Your task to perform on an android device: Open accessibility settings Image 0: 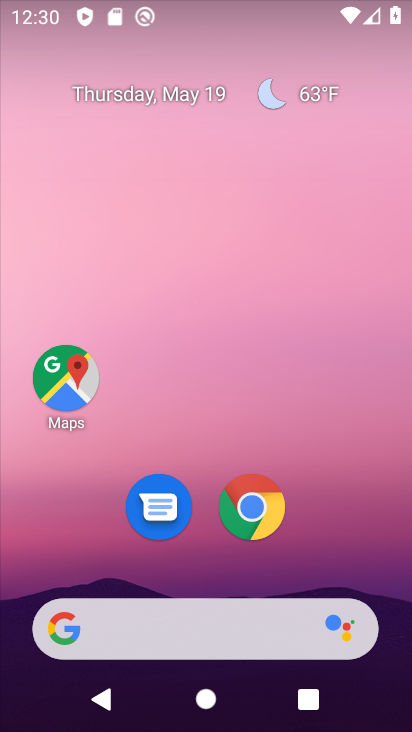
Step 0: drag from (193, 596) to (220, 273)
Your task to perform on an android device: Open accessibility settings Image 1: 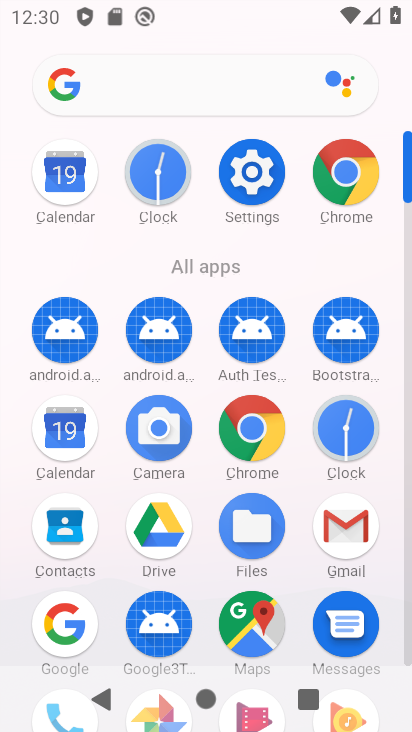
Step 1: click (251, 162)
Your task to perform on an android device: Open accessibility settings Image 2: 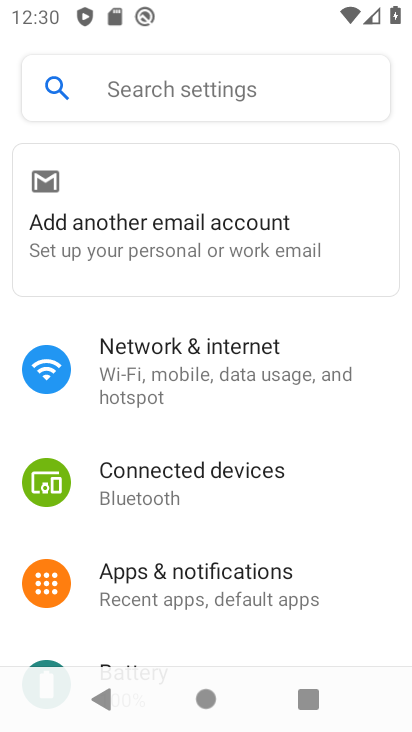
Step 2: drag from (213, 634) to (270, 238)
Your task to perform on an android device: Open accessibility settings Image 3: 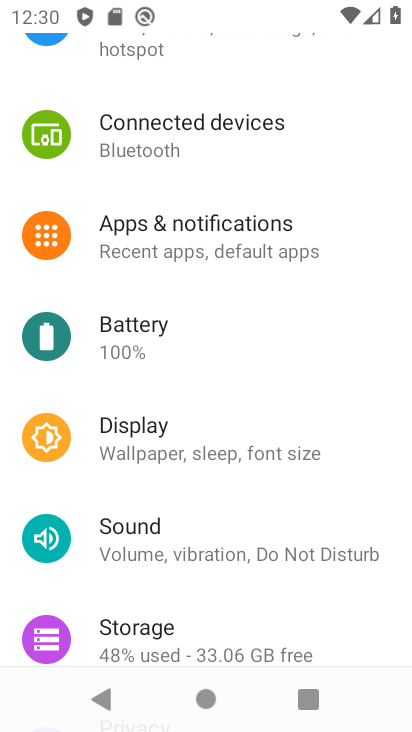
Step 3: drag from (174, 644) to (223, 45)
Your task to perform on an android device: Open accessibility settings Image 4: 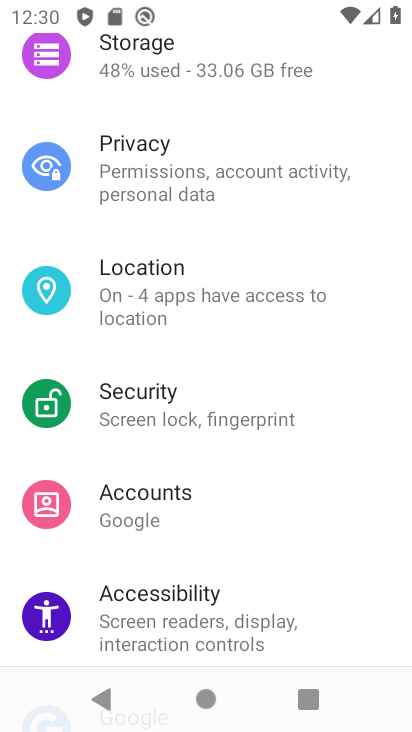
Step 4: click (167, 598)
Your task to perform on an android device: Open accessibility settings Image 5: 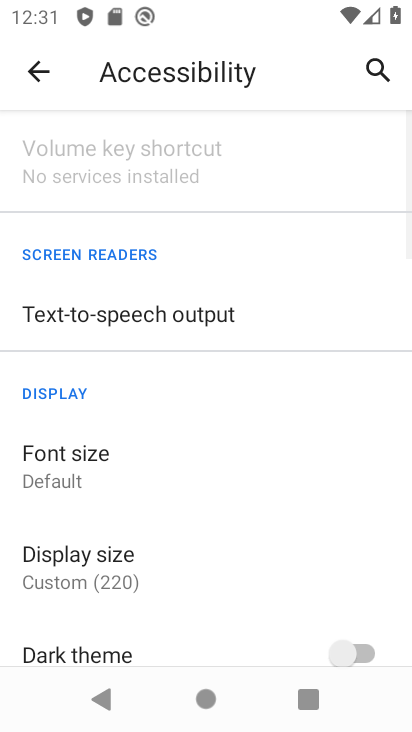
Step 5: task complete